Your task to perform on an android device: toggle location history Image 0: 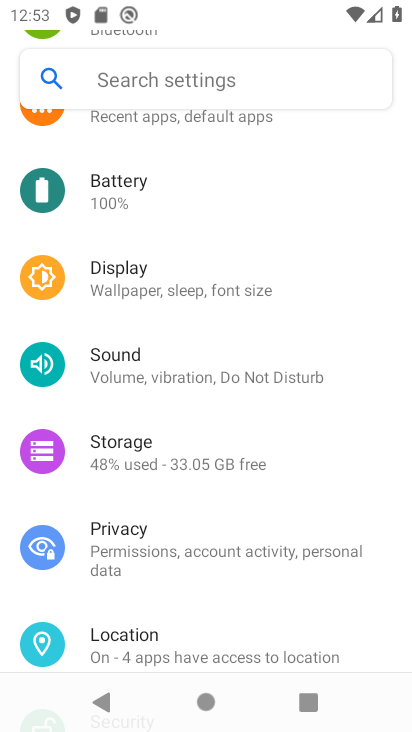
Step 0: drag from (196, 618) to (263, 382)
Your task to perform on an android device: toggle location history Image 1: 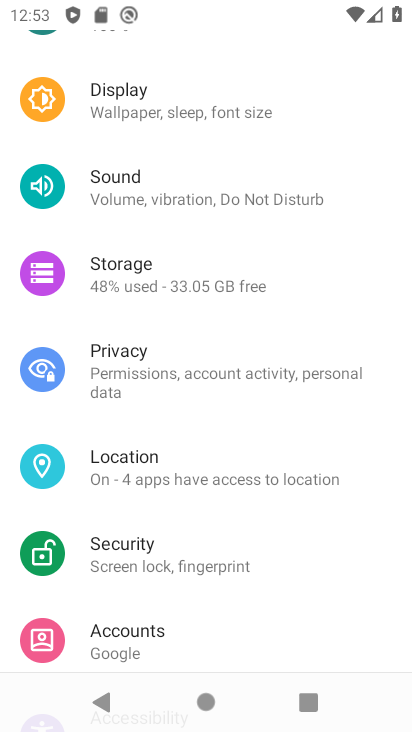
Step 1: click (158, 468)
Your task to perform on an android device: toggle location history Image 2: 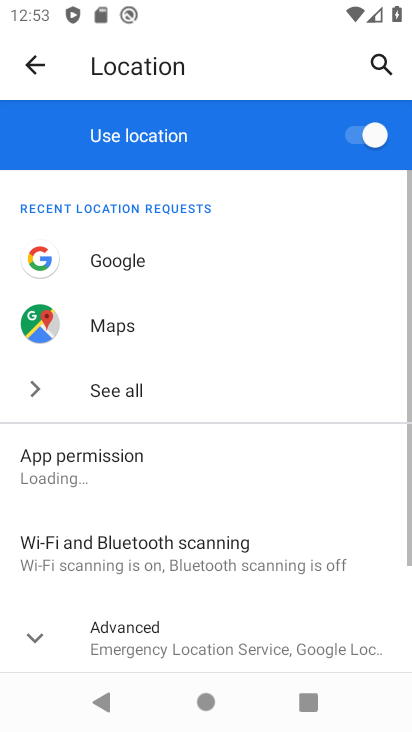
Step 2: drag from (188, 572) to (254, 270)
Your task to perform on an android device: toggle location history Image 3: 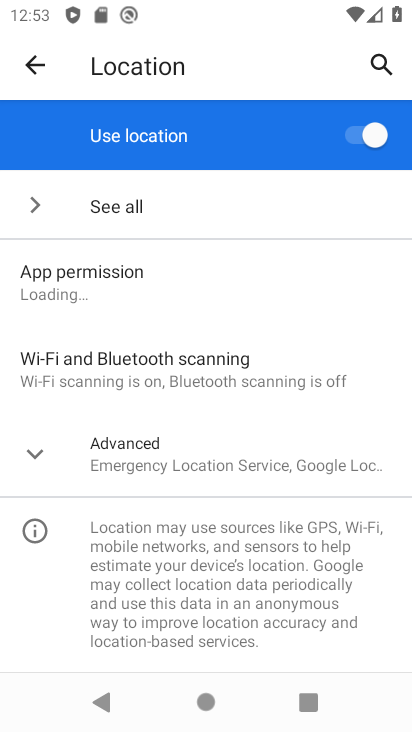
Step 3: click (211, 446)
Your task to perform on an android device: toggle location history Image 4: 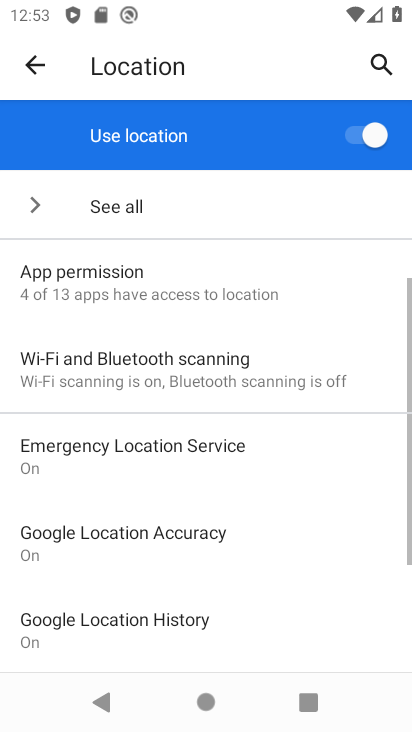
Step 4: drag from (196, 578) to (276, 362)
Your task to perform on an android device: toggle location history Image 5: 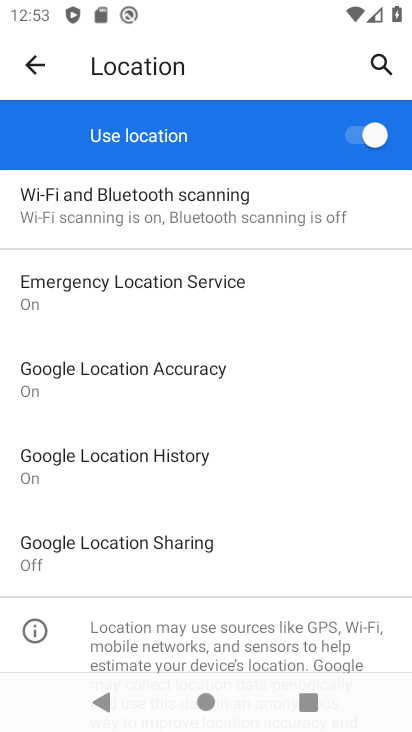
Step 5: click (198, 470)
Your task to perform on an android device: toggle location history Image 6: 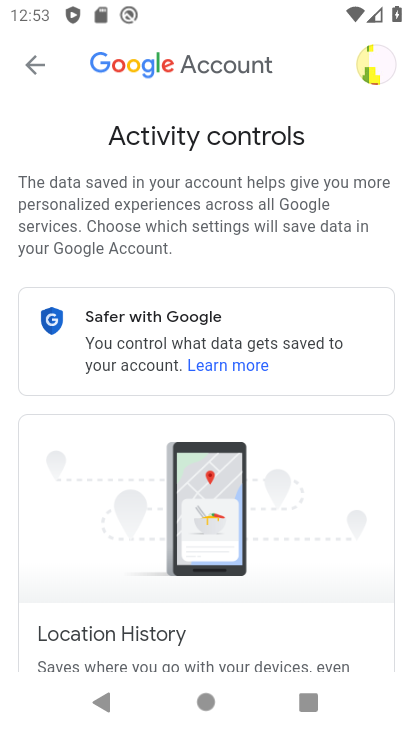
Step 6: drag from (246, 596) to (330, 131)
Your task to perform on an android device: toggle location history Image 7: 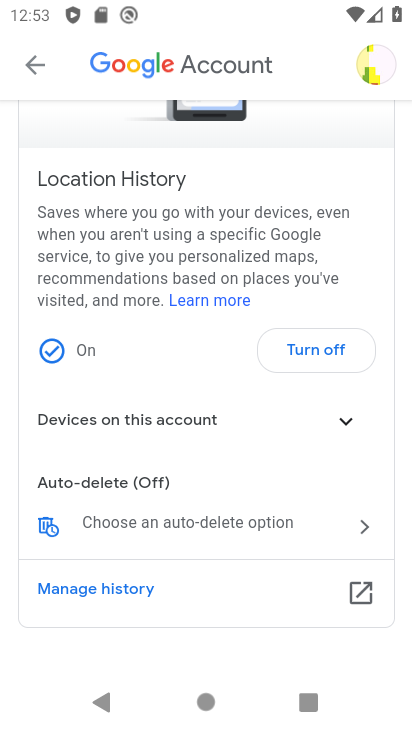
Step 7: click (317, 353)
Your task to perform on an android device: toggle location history Image 8: 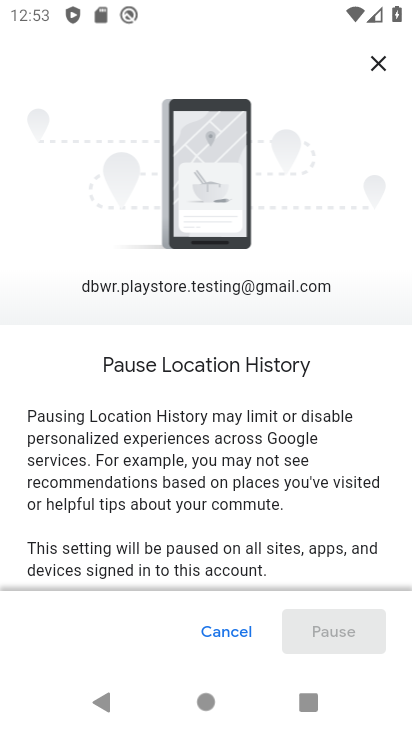
Step 8: drag from (232, 542) to (297, 159)
Your task to perform on an android device: toggle location history Image 9: 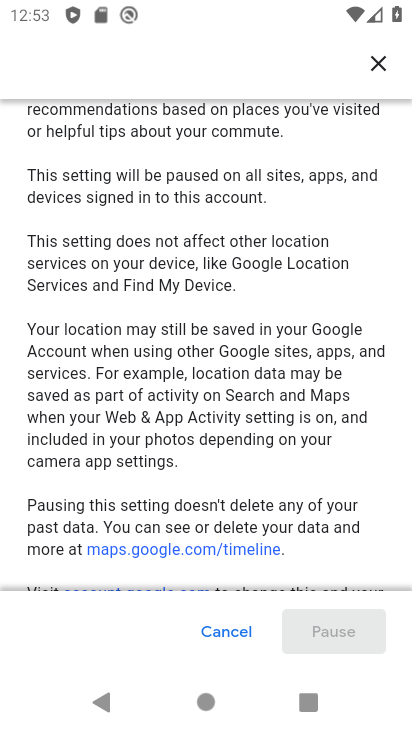
Step 9: click (314, 219)
Your task to perform on an android device: toggle location history Image 10: 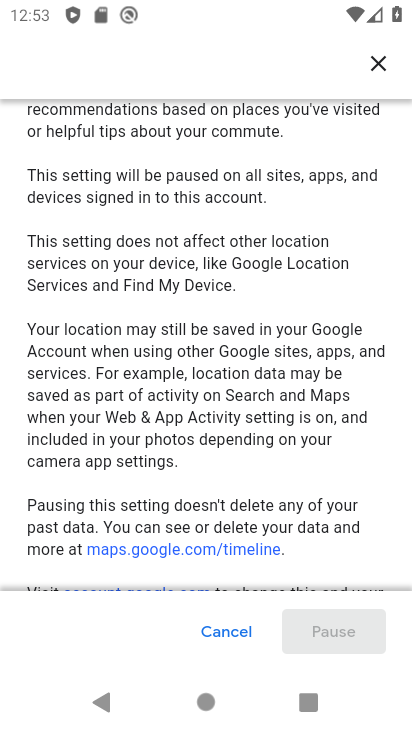
Step 10: drag from (272, 500) to (336, 185)
Your task to perform on an android device: toggle location history Image 11: 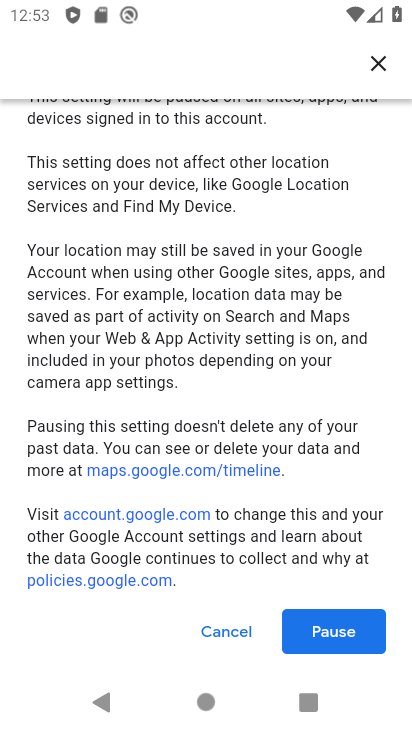
Step 11: click (351, 631)
Your task to perform on an android device: toggle location history Image 12: 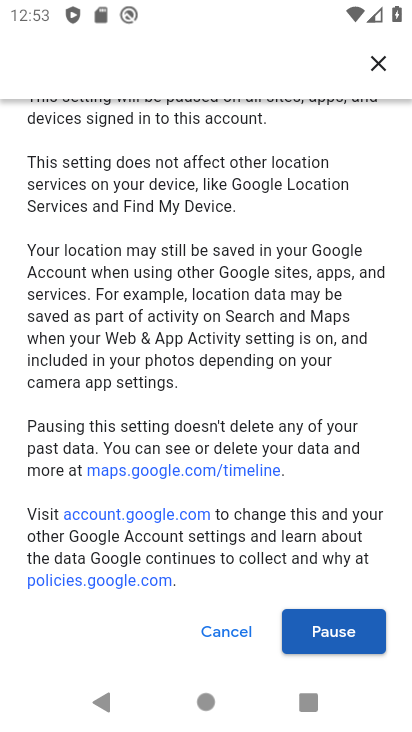
Step 12: click (350, 630)
Your task to perform on an android device: toggle location history Image 13: 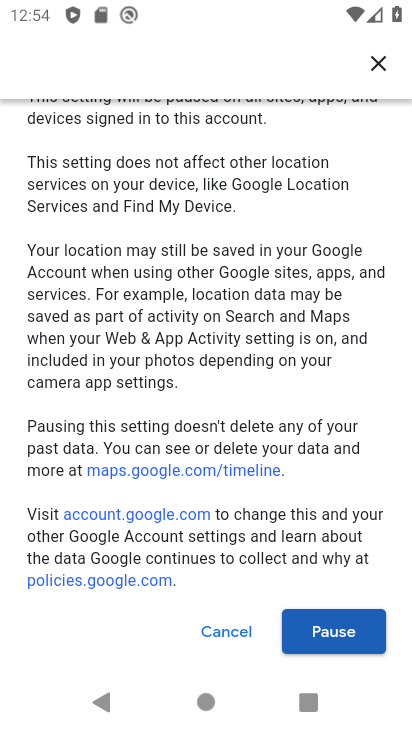
Step 13: click (350, 630)
Your task to perform on an android device: toggle location history Image 14: 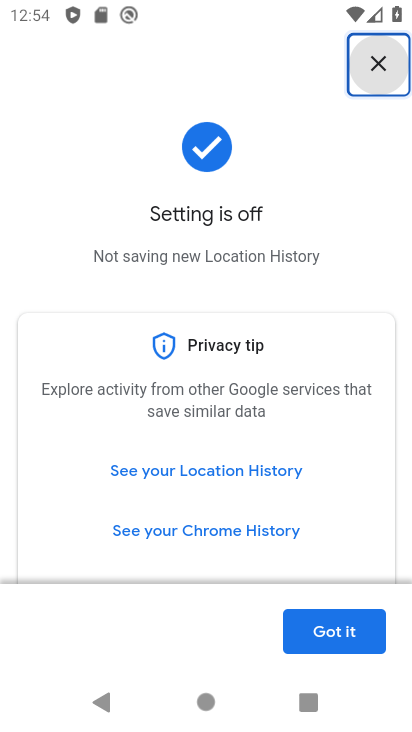
Step 14: click (353, 635)
Your task to perform on an android device: toggle location history Image 15: 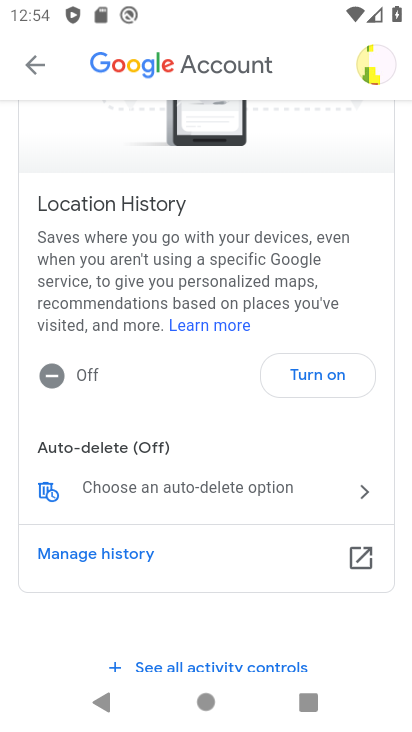
Step 15: task complete